Your task to perform on an android device: check data usage Image 0: 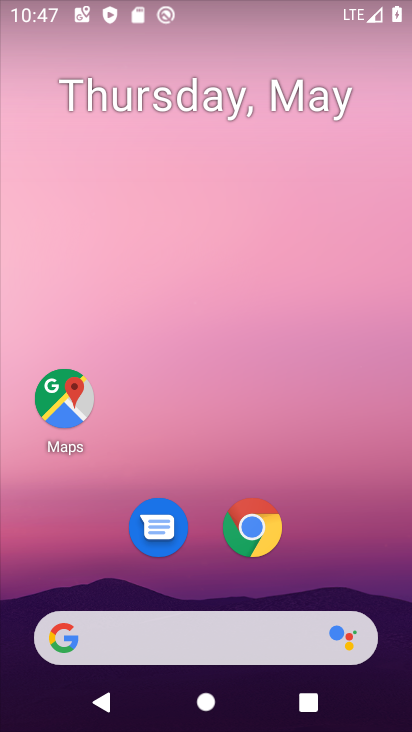
Step 0: drag from (332, 574) to (401, 141)
Your task to perform on an android device: check data usage Image 1: 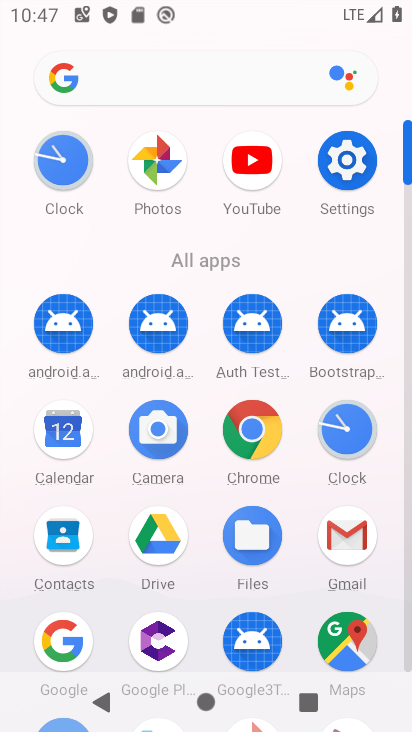
Step 1: click (351, 166)
Your task to perform on an android device: check data usage Image 2: 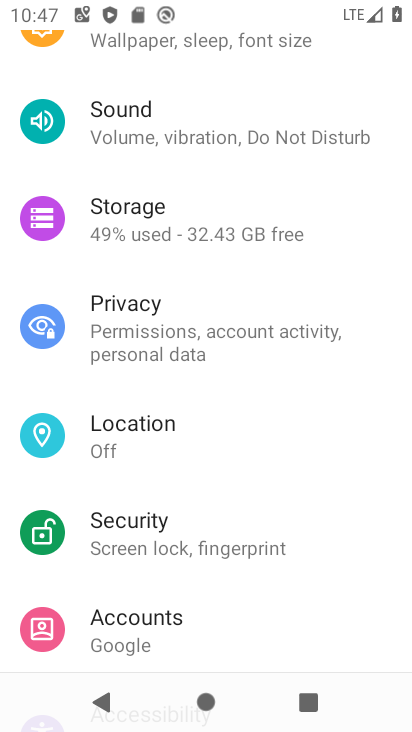
Step 2: drag from (273, 178) to (195, 528)
Your task to perform on an android device: check data usage Image 3: 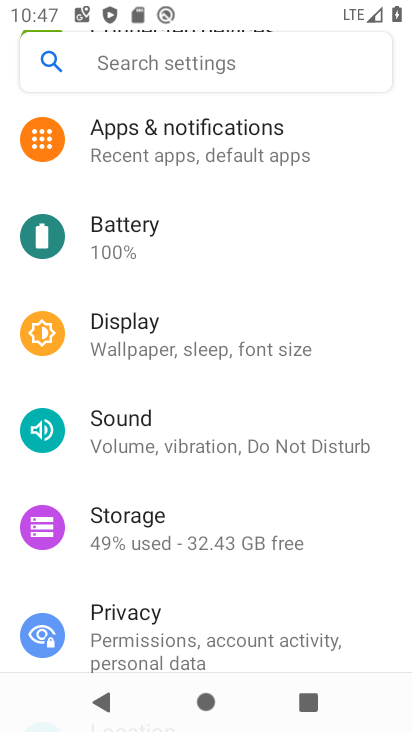
Step 3: drag from (287, 227) to (228, 613)
Your task to perform on an android device: check data usage Image 4: 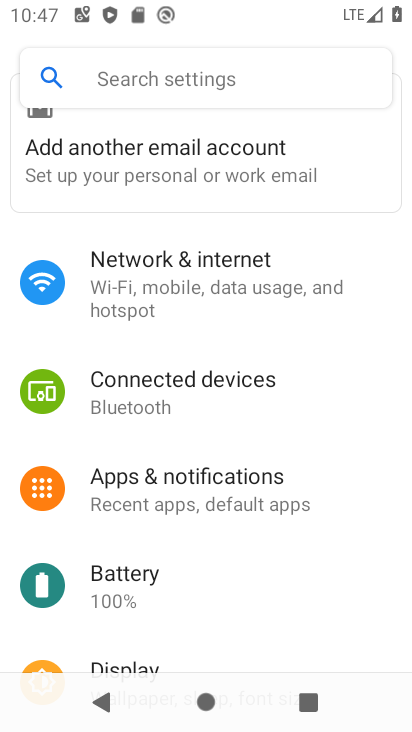
Step 4: click (234, 269)
Your task to perform on an android device: check data usage Image 5: 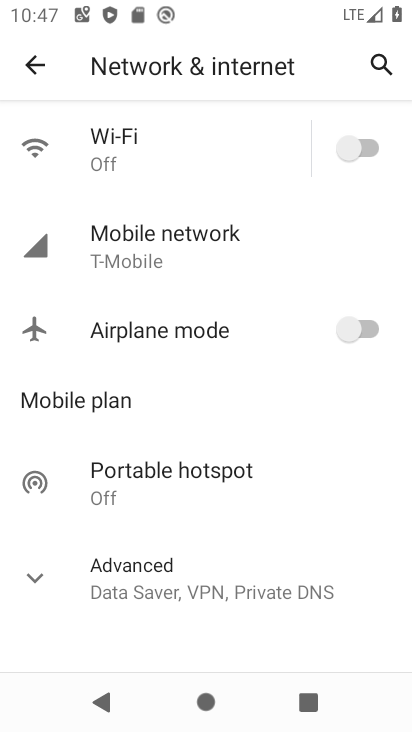
Step 5: click (200, 244)
Your task to perform on an android device: check data usage Image 6: 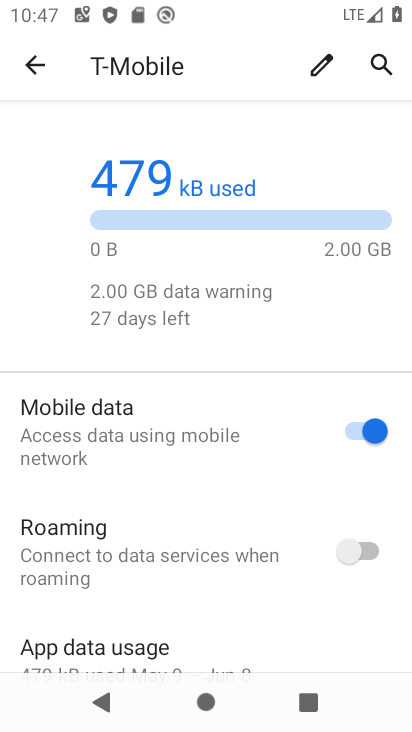
Step 6: task complete